Your task to perform on an android device: manage bookmarks in the chrome app Image 0: 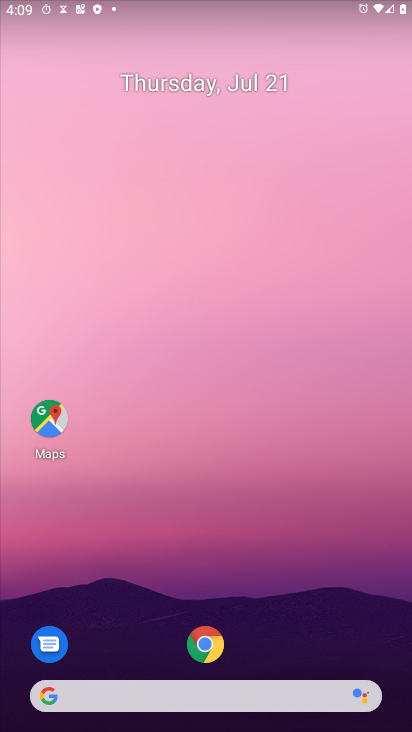
Step 0: press home button
Your task to perform on an android device: manage bookmarks in the chrome app Image 1: 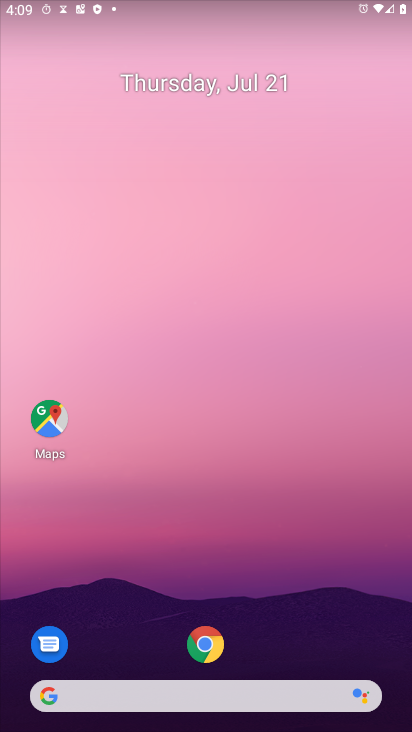
Step 1: drag from (284, 671) to (292, 10)
Your task to perform on an android device: manage bookmarks in the chrome app Image 2: 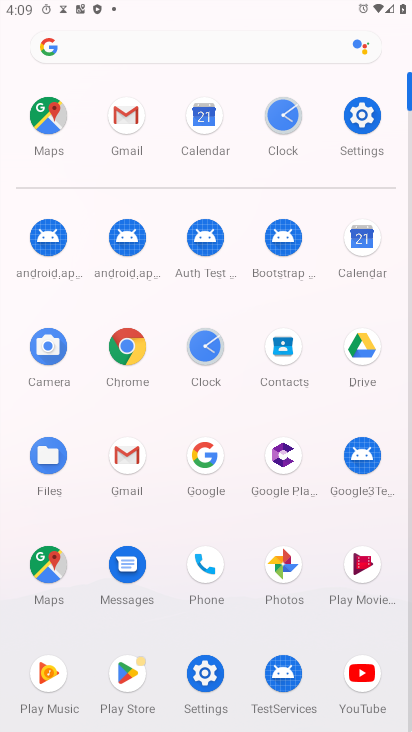
Step 2: click (124, 352)
Your task to perform on an android device: manage bookmarks in the chrome app Image 3: 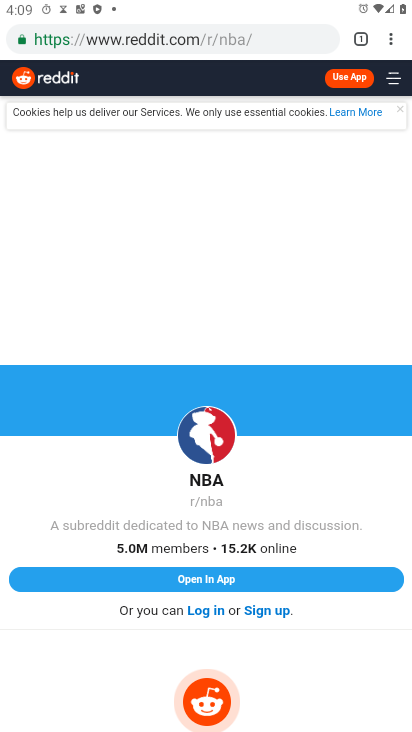
Step 3: drag from (394, 40) to (271, 213)
Your task to perform on an android device: manage bookmarks in the chrome app Image 4: 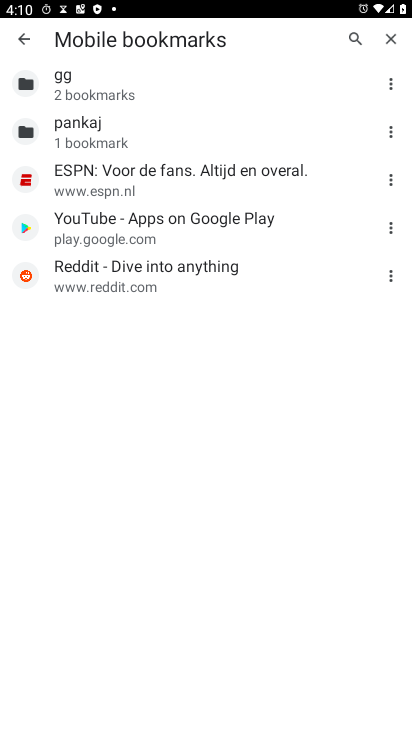
Step 4: click (387, 86)
Your task to perform on an android device: manage bookmarks in the chrome app Image 5: 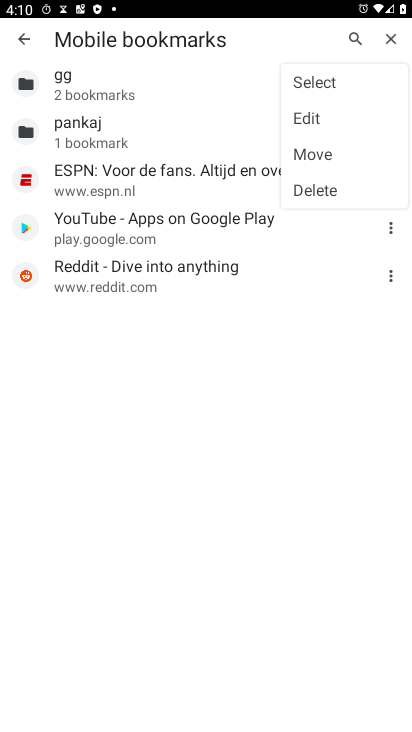
Step 5: click (301, 115)
Your task to perform on an android device: manage bookmarks in the chrome app Image 6: 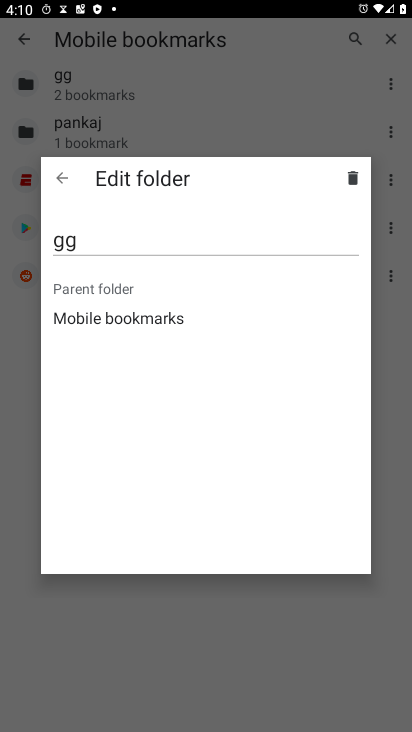
Step 6: task complete